Your task to perform on an android device: open a bookmark in the chrome app Image 0: 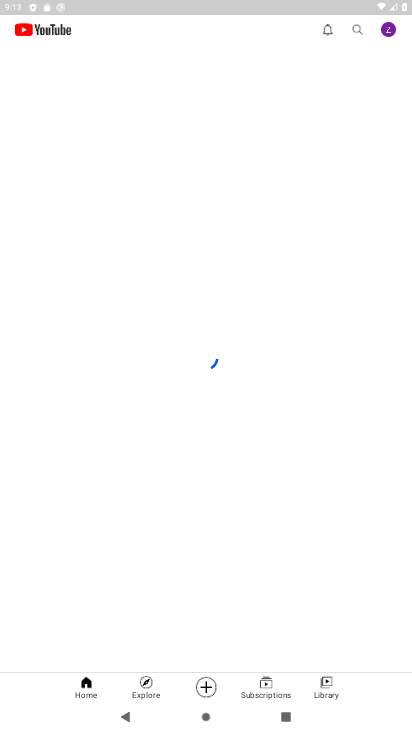
Step 0: press home button
Your task to perform on an android device: open a bookmark in the chrome app Image 1: 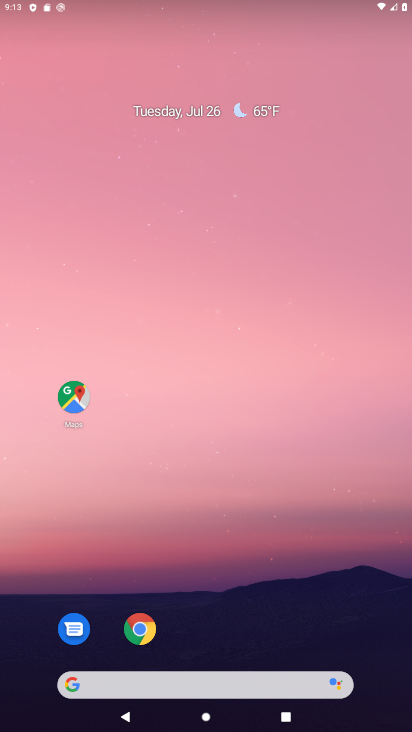
Step 1: drag from (276, 494) to (248, 0)
Your task to perform on an android device: open a bookmark in the chrome app Image 2: 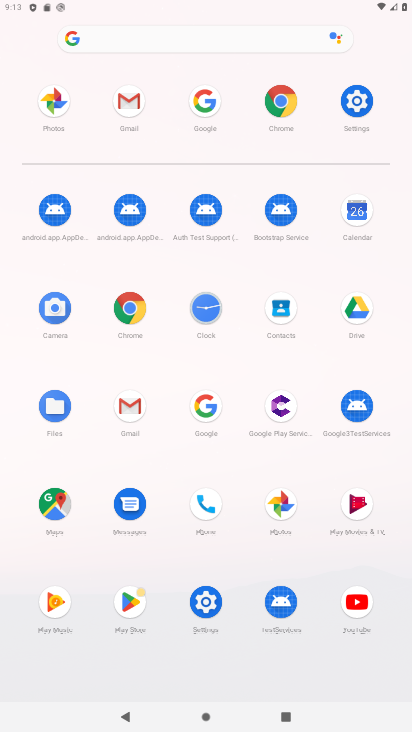
Step 2: click (131, 308)
Your task to perform on an android device: open a bookmark in the chrome app Image 3: 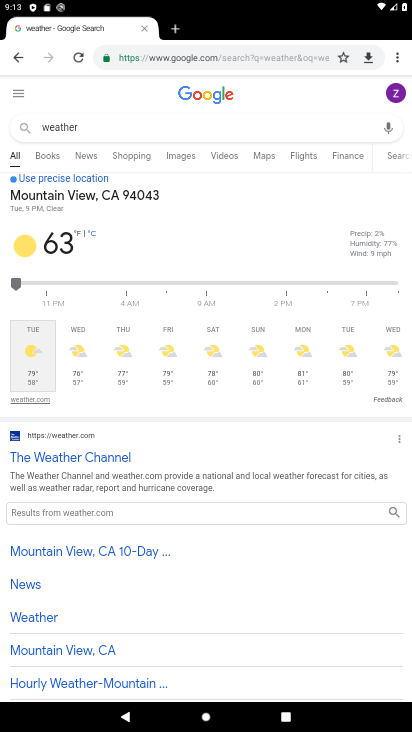
Step 3: drag from (400, 51) to (294, 125)
Your task to perform on an android device: open a bookmark in the chrome app Image 4: 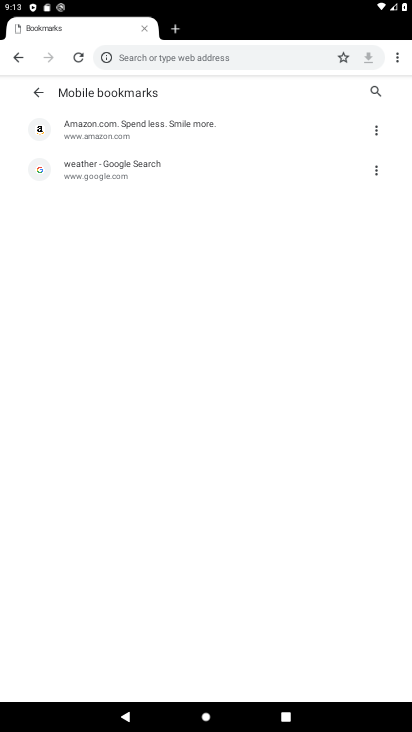
Step 4: click (97, 132)
Your task to perform on an android device: open a bookmark in the chrome app Image 5: 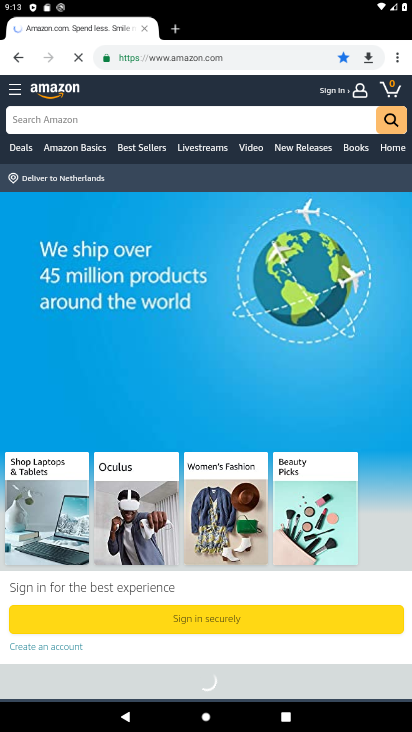
Step 5: task complete